Your task to perform on an android device: open app "Indeed Job Search" (install if not already installed) and go to login screen Image 0: 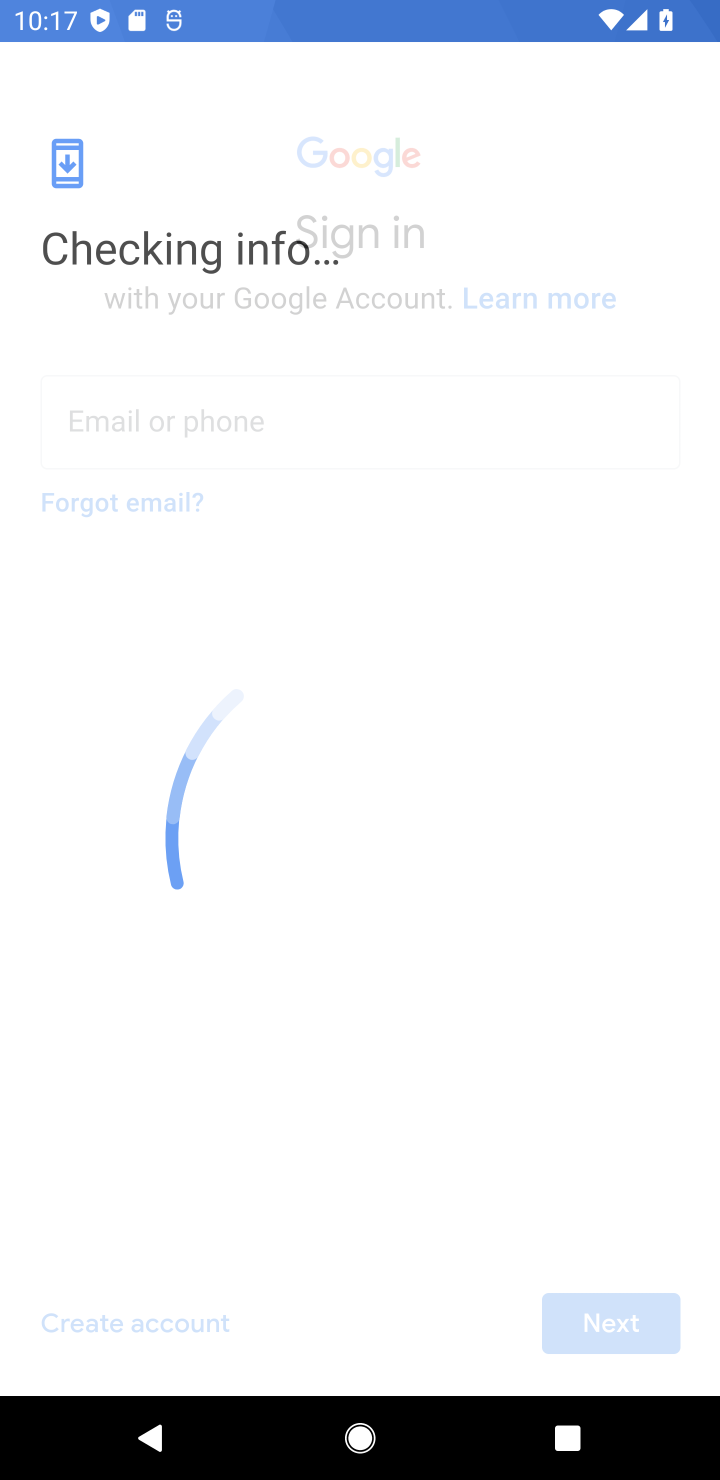
Step 0: press home button
Your task to perform on an android device: open app "Indeed Job Search" (install if not already installed) and go to login screen Image 1: 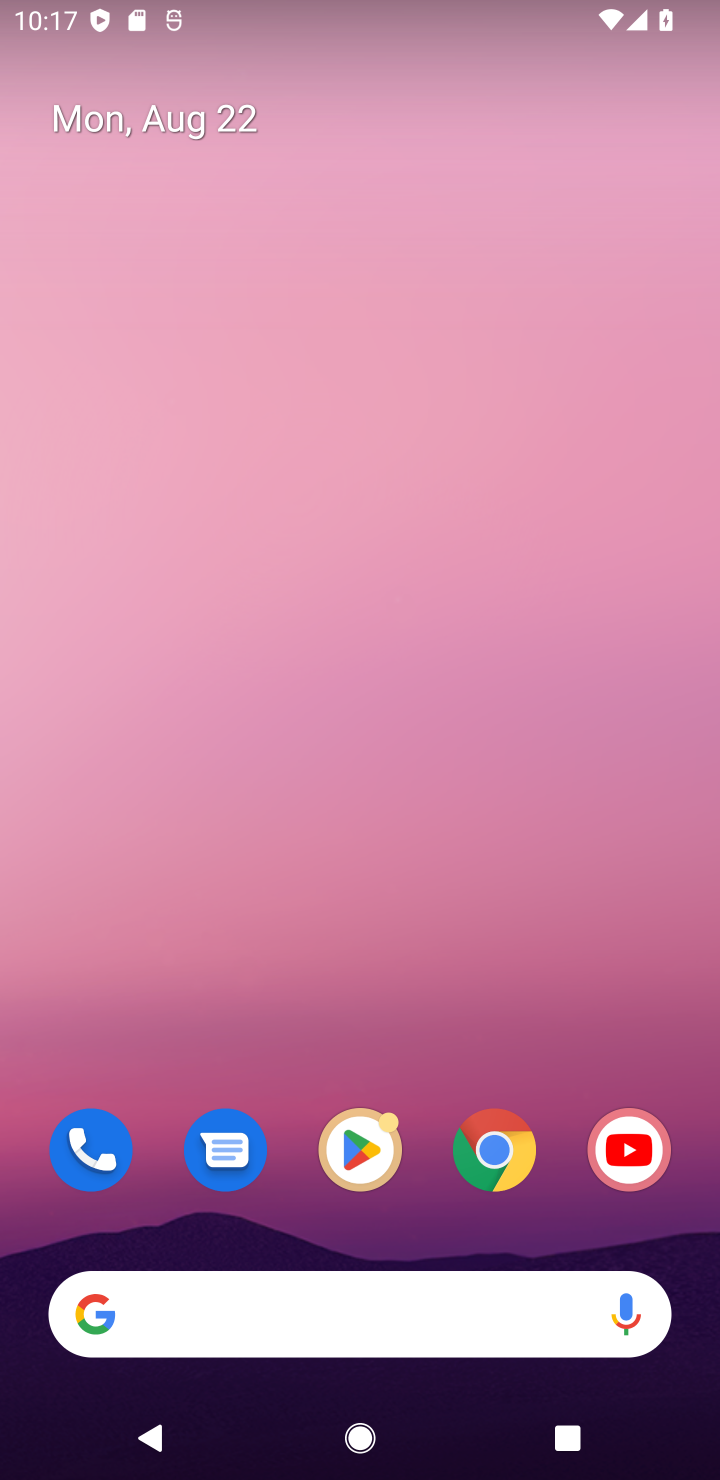
Step 1: drag from (421, 1263) to (405, 62)
Your task to perform on an android device: open app "Indeed Job Search" (install if not already installed) and go to login screen Image 2: 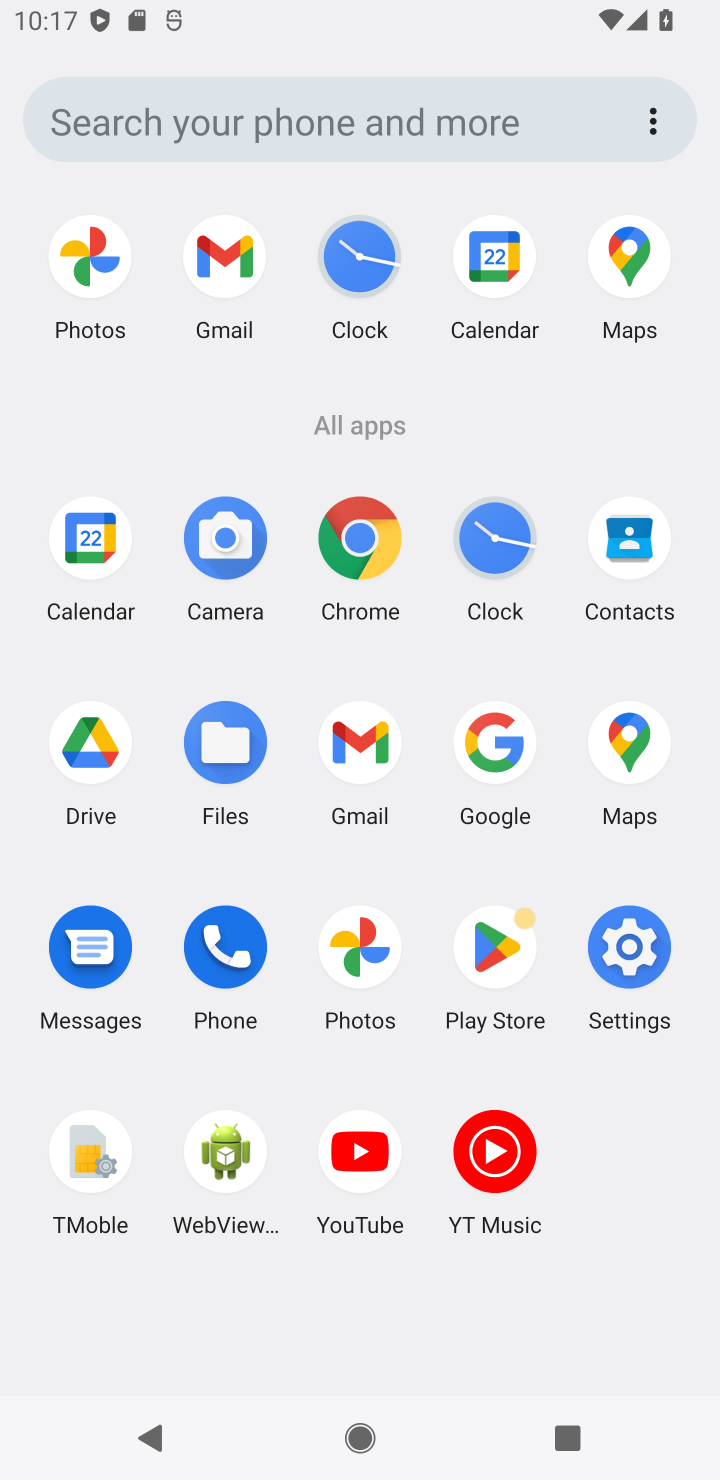
Step 2: click (493, 960)
Your task to perform on an android device: open app "Indeed Job Search" (install if not already installed) and go to login screen Image 3: 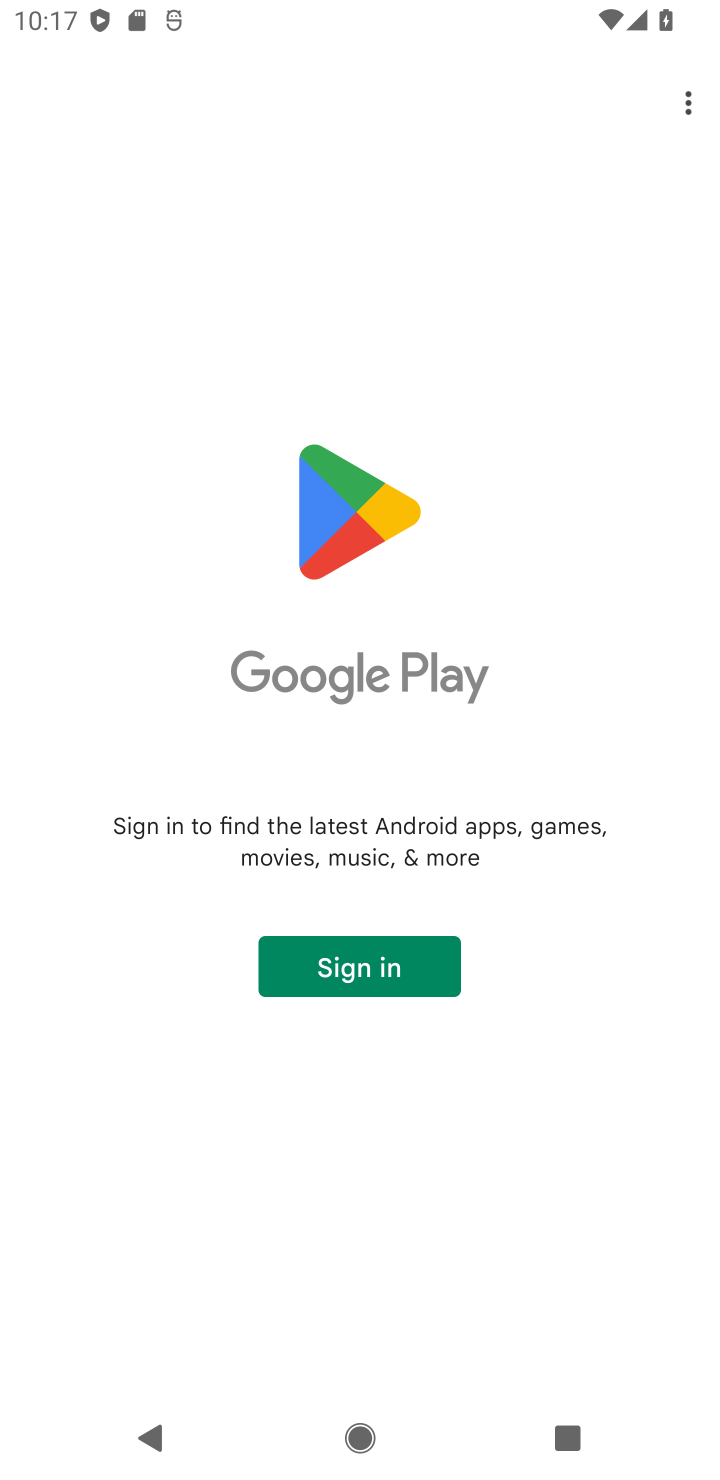
Step 3: task complete